Your task to perform on an android device: Open internet settings Image 0: 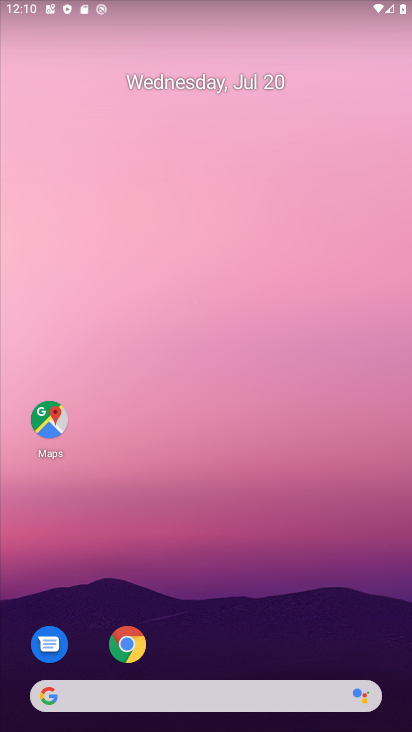
Step 0: press home button
Your task to perform on an android device: Open internet settings Image 1: 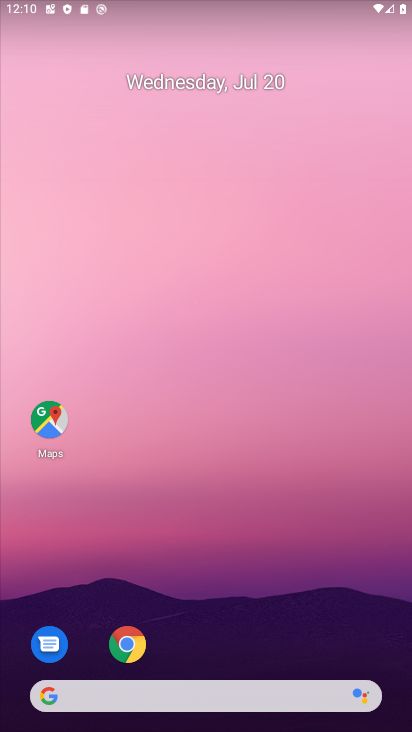
Step 1: drag from (225, 613) to (195, 100)
Your task to perform on an android device: Open internet settings Image 2: 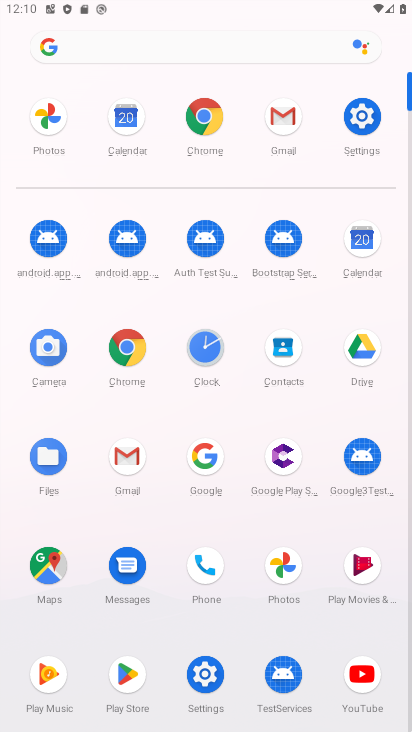
Step 2: click (352, 125)
Your task to perform on an android device: Open internet settings Image 3: 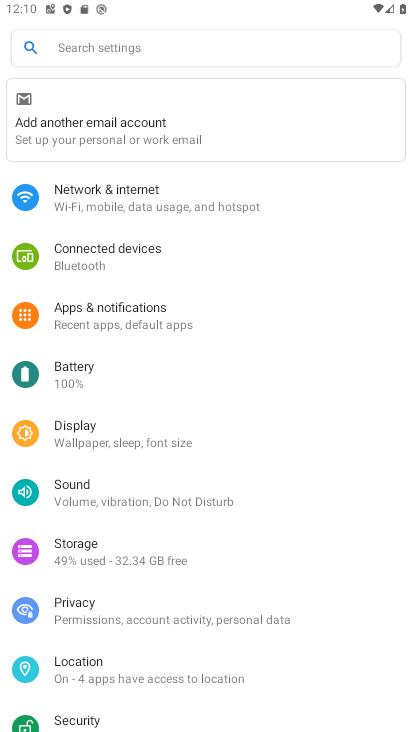
Step 3: click (107, 219)
Your task to perform on an android device: Open internet settings Image 4: 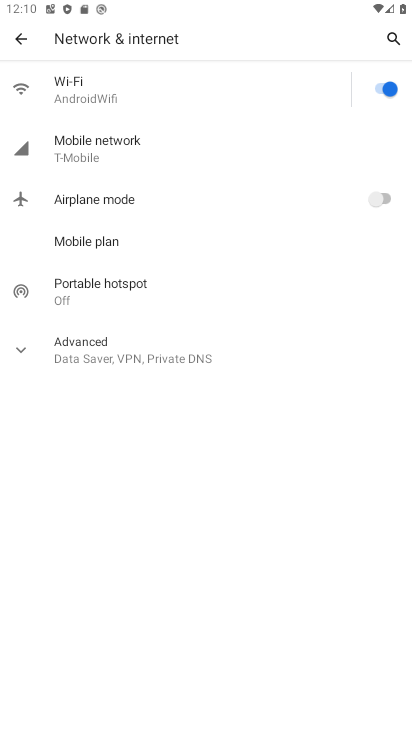
Step 4: task complete